Your task to perform on an android device: When is my next appointment? Image 0: 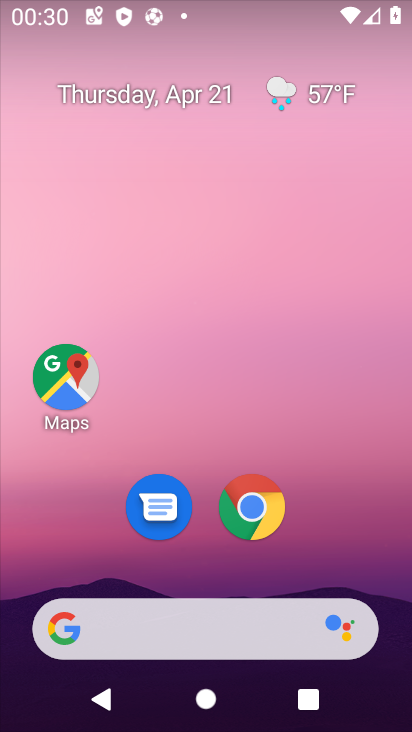
Step 0: drag from (239, 544) to (369, 40)
Your task to perform on an android device: When is my next appointment? Image 1: 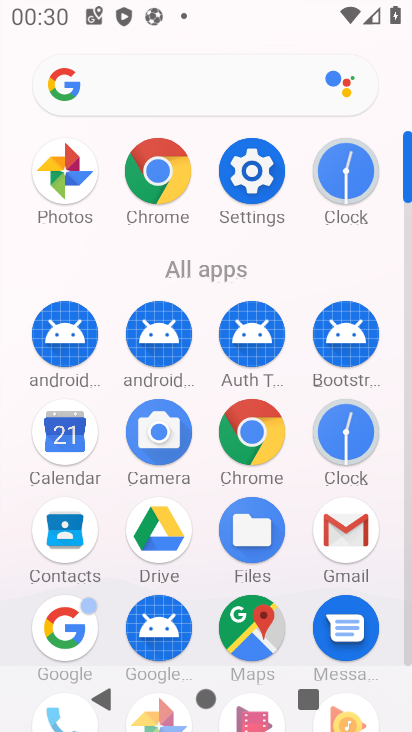
Step 1: click (66, 419)
Your task to perform on an android device: When is my next appointment? Image 2: 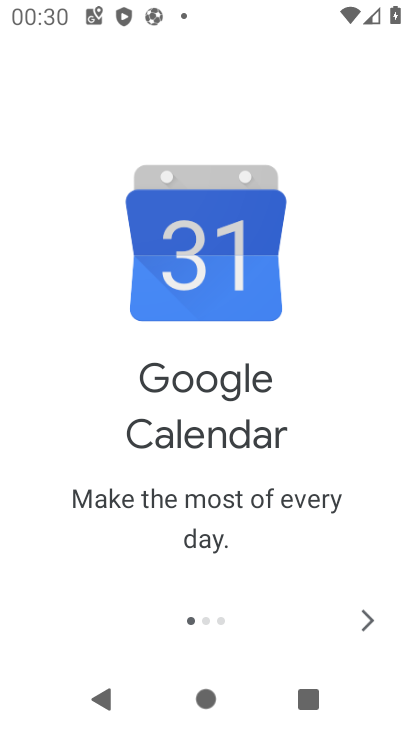
Step 2: click (365, 633)
Your task to perform on an android device: When is my next appointment? Image 3: 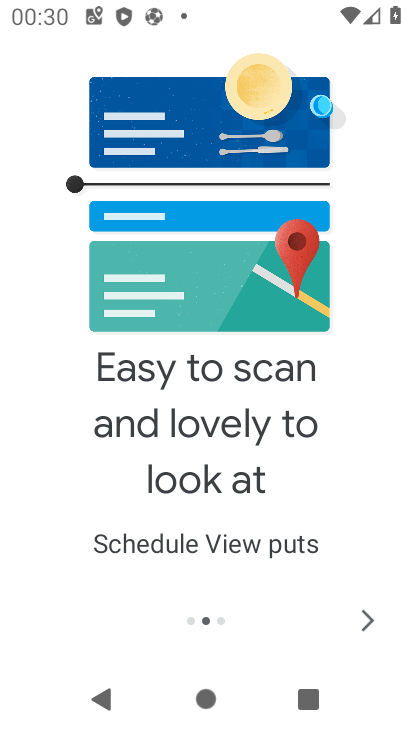
Step 3: click (373, 616)
Your task to perform on an android device: When is my next appointment? Image 4: 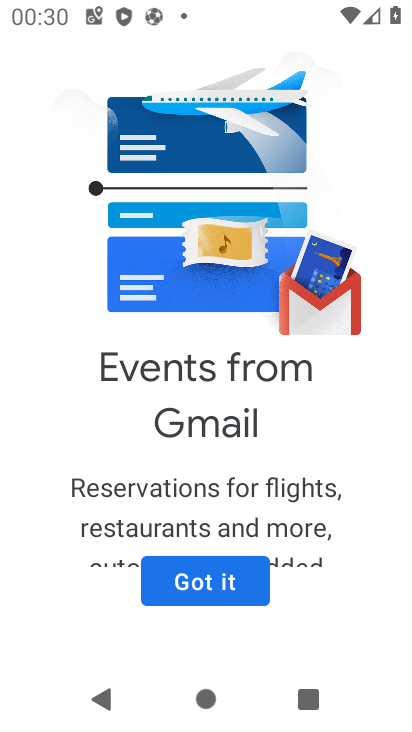
Step 4: click (209, 564)
Your task to perform on an android device: When is my next appointment? Image 5: 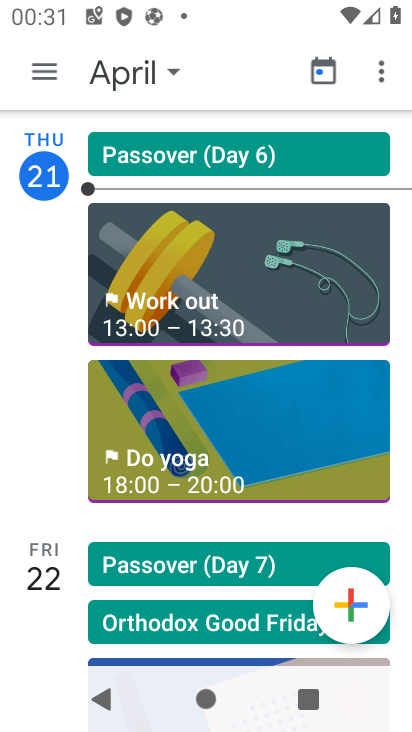
Step 5: task complete